Your task to perform on an android device: turn pop-ups off in chrome Image 0: 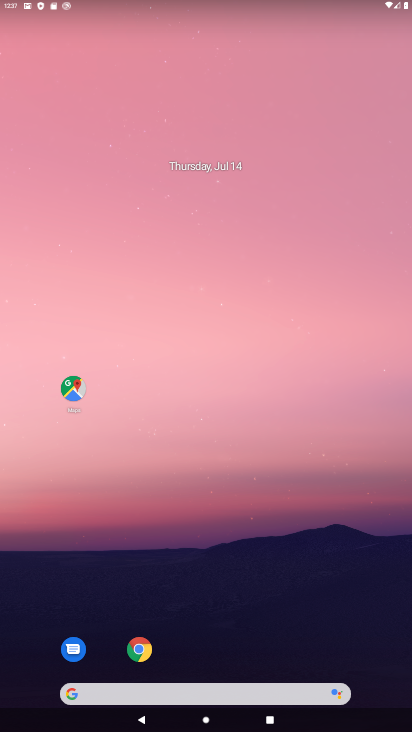
Step 0: drag from (193, 654) to (238, 232)
Your task to perform on an android device: turn pop-ups off in chrome Image 1: 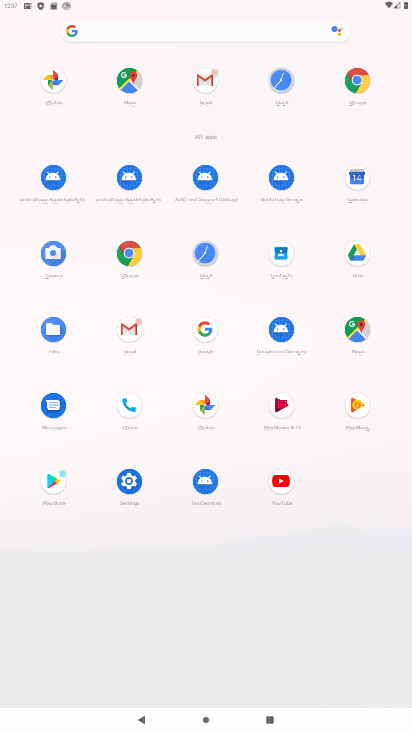
Step 1: click (125, 254)
Your task to perform on an android device: turn pop-ups off in chrome Image 2: 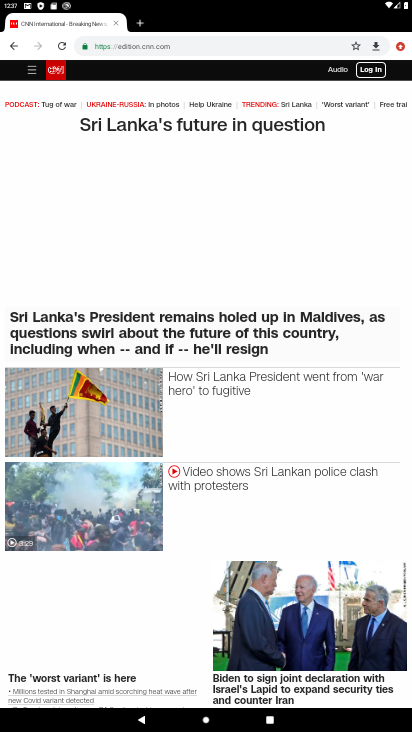
Step 2: drag from (402, 47) to (337, 335)
Your task to perform on an android device: turn pop-ups off in chrome Image 3: 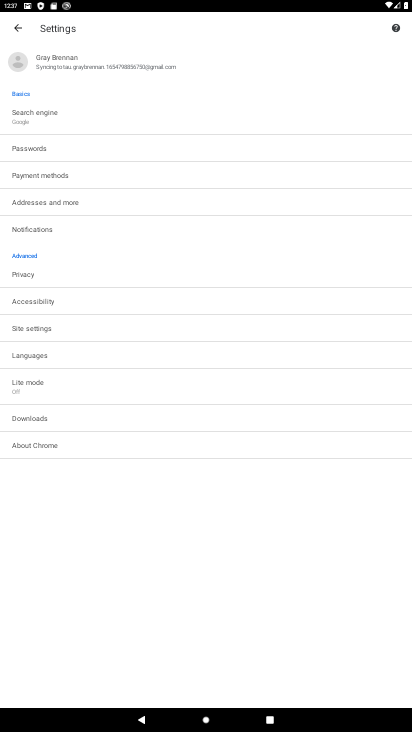
Step 3: click (69, 329)
Your task to perform on an android device: turn pop-ups off in chrome Image 4: 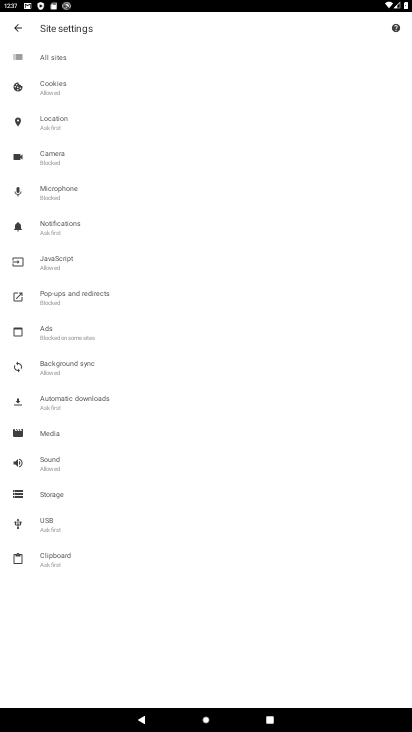
Step 4: click (114, 309)
Your task to perform on an android device: turn pop-ups off in chrome Image 5: 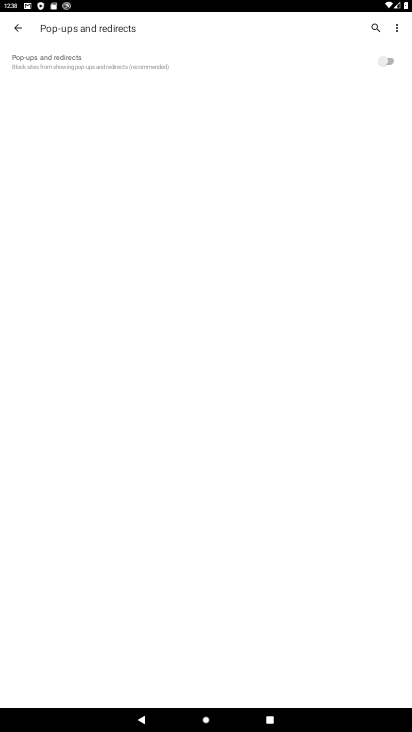
Step 5: task complete